Your task to perform on an android device: check battery use Image 0: 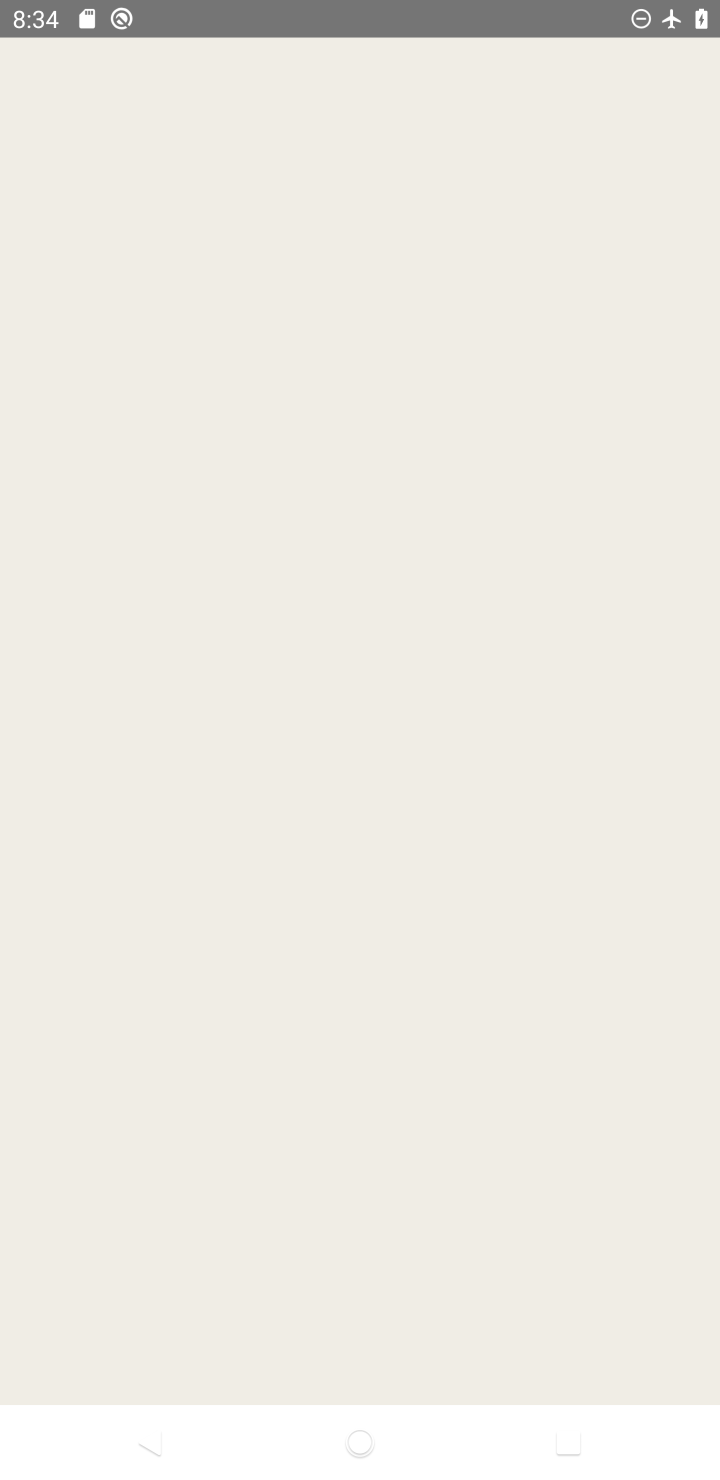
Step 0: press home button
Your task to perform on an android device: check battery use Image 1: 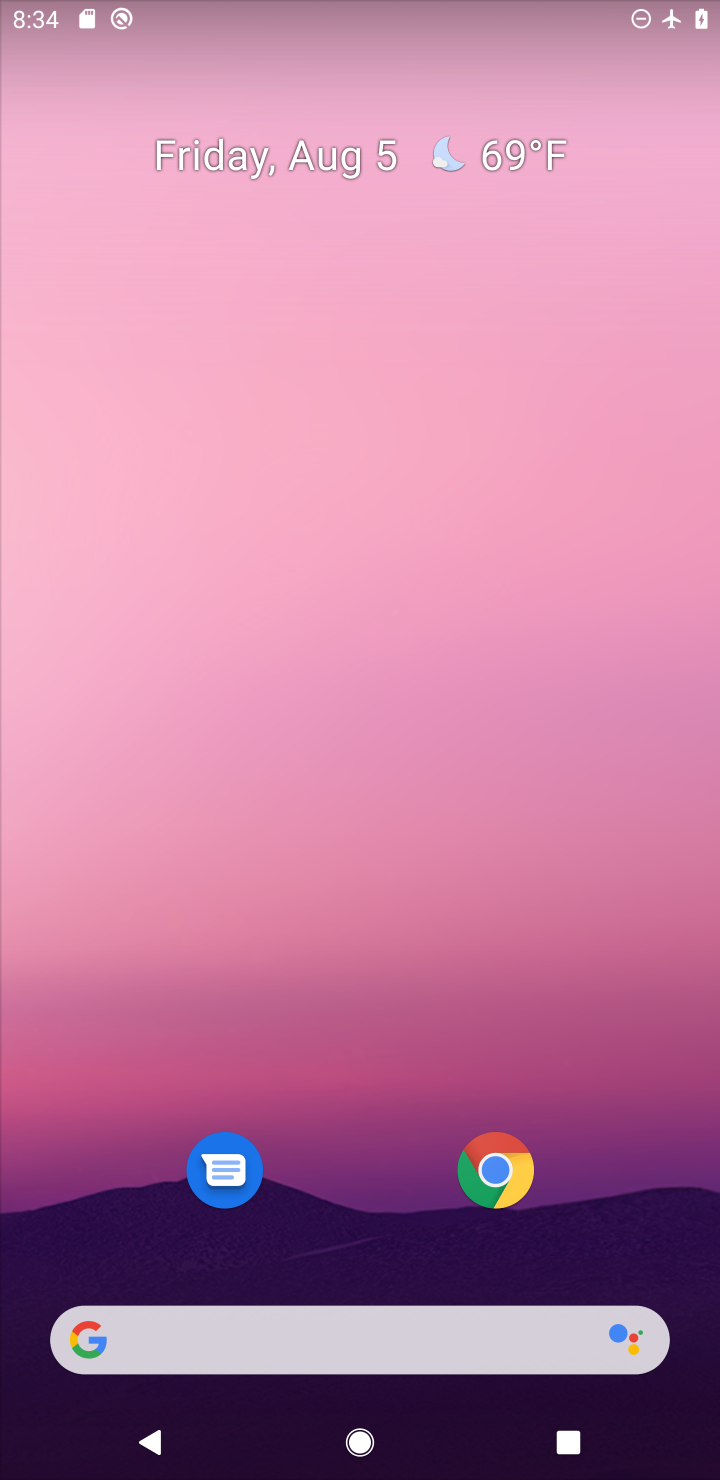
Step 1: drag from (584, 856) to (565, 174)
Your task to perform on an android device: check battery use Image 2: 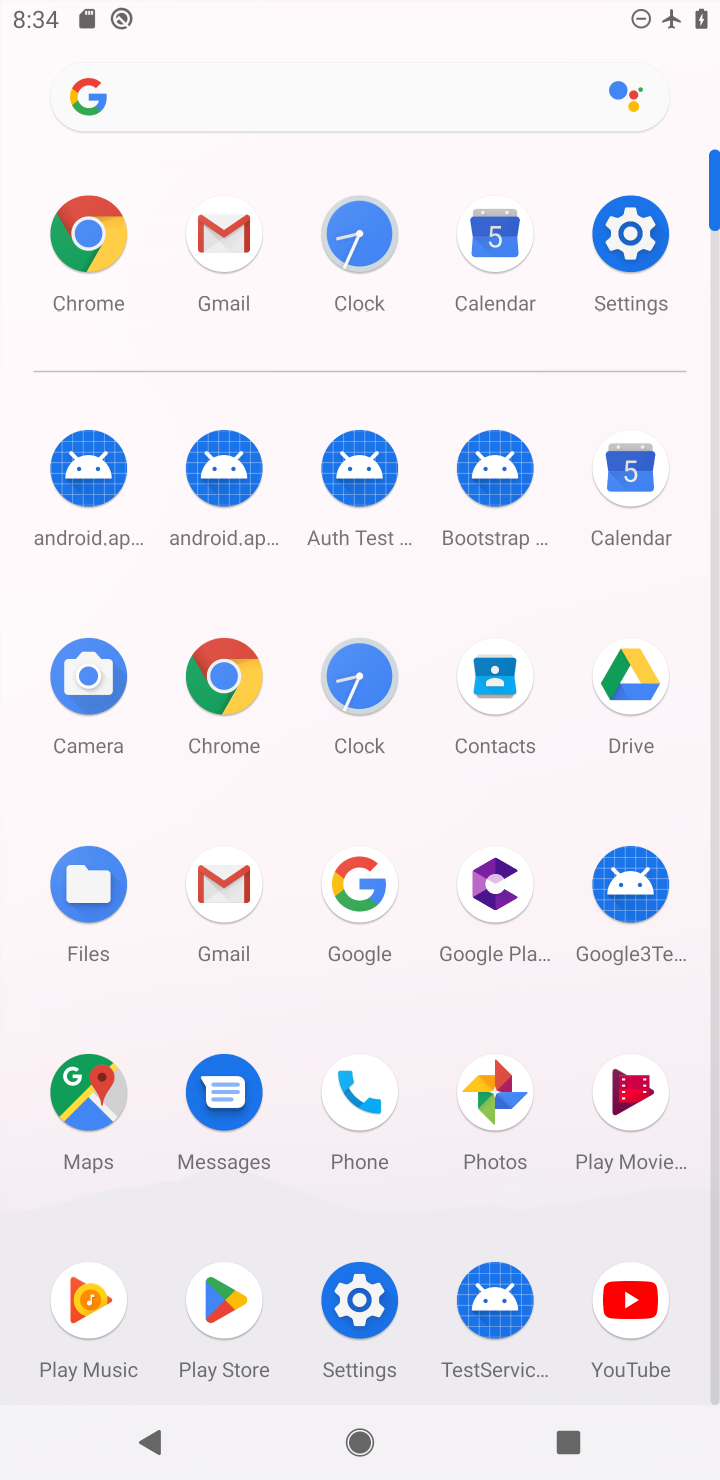
Step 2: click (358, 1306)
Your task to perform on an android device: check battery use Image 3: 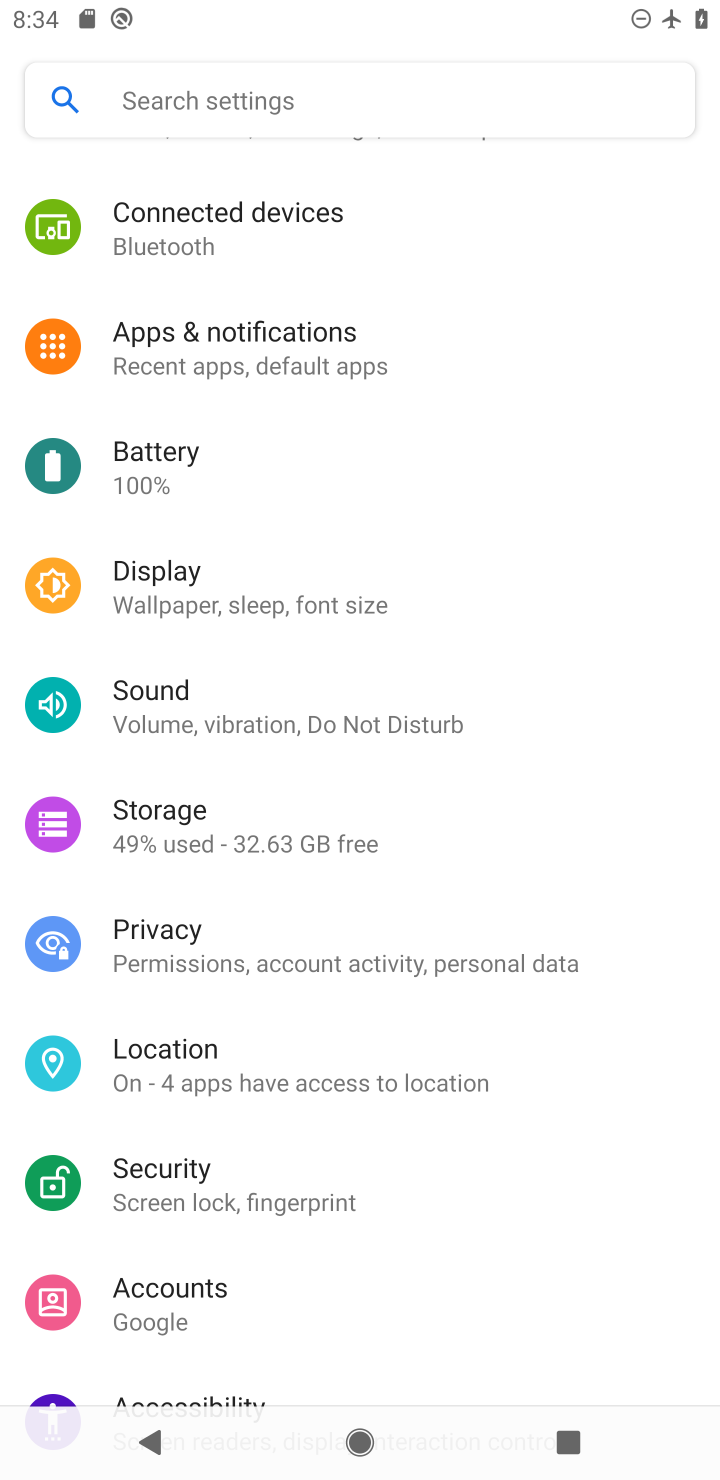
Step 3: click (166, 461)
Your task to perform on an android device: check battery use Image 4: 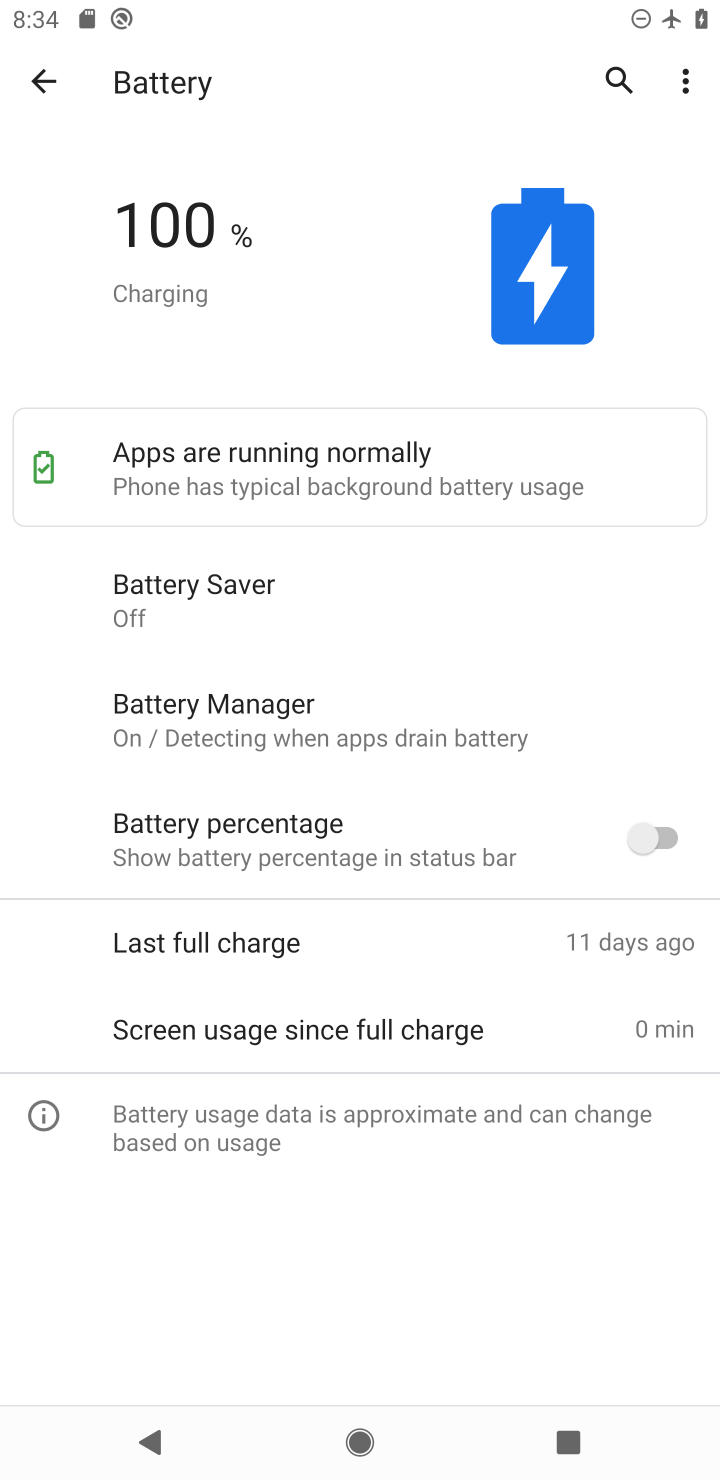
Step 4: click (684, 94)
Your task to perform on an android device: check battery use Image 5: 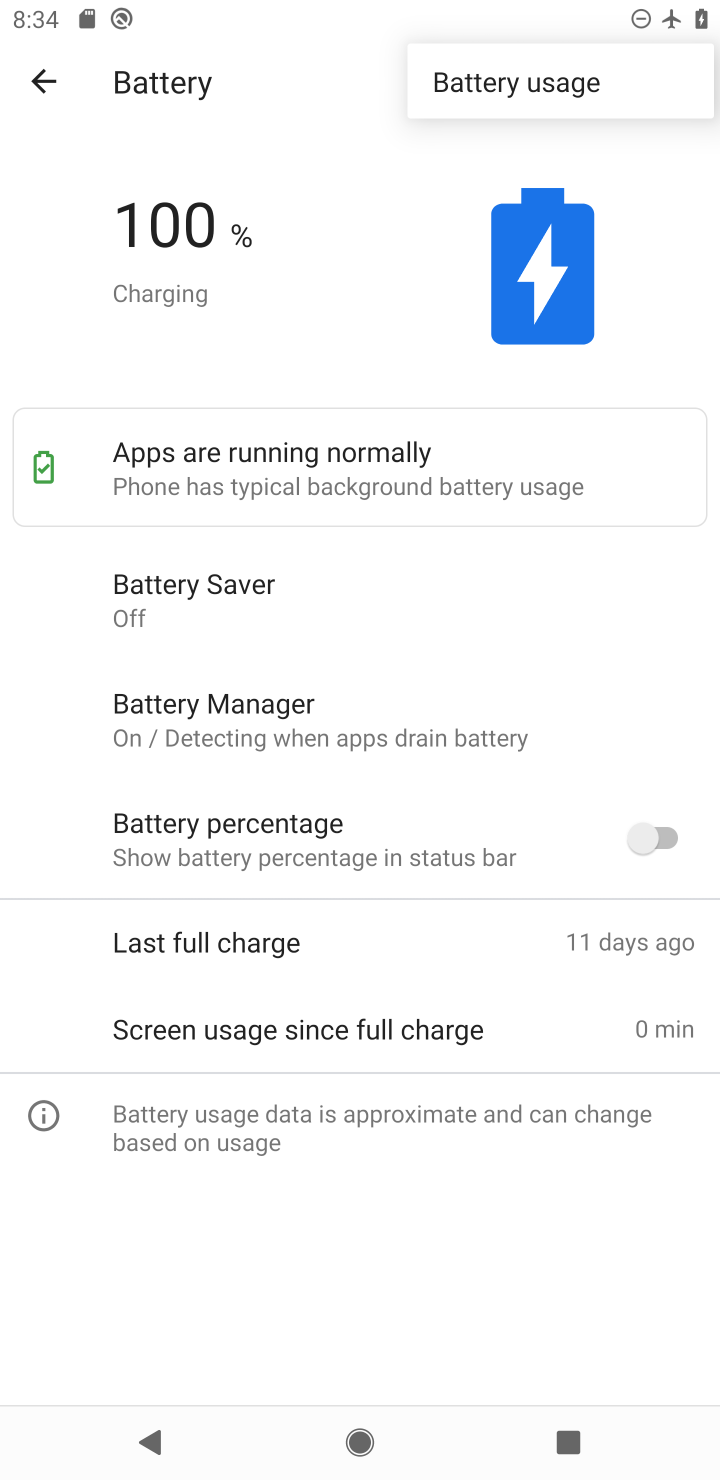
Step 5: click (501, 82)
Your task to perform on an android device: check battery use Image 6: 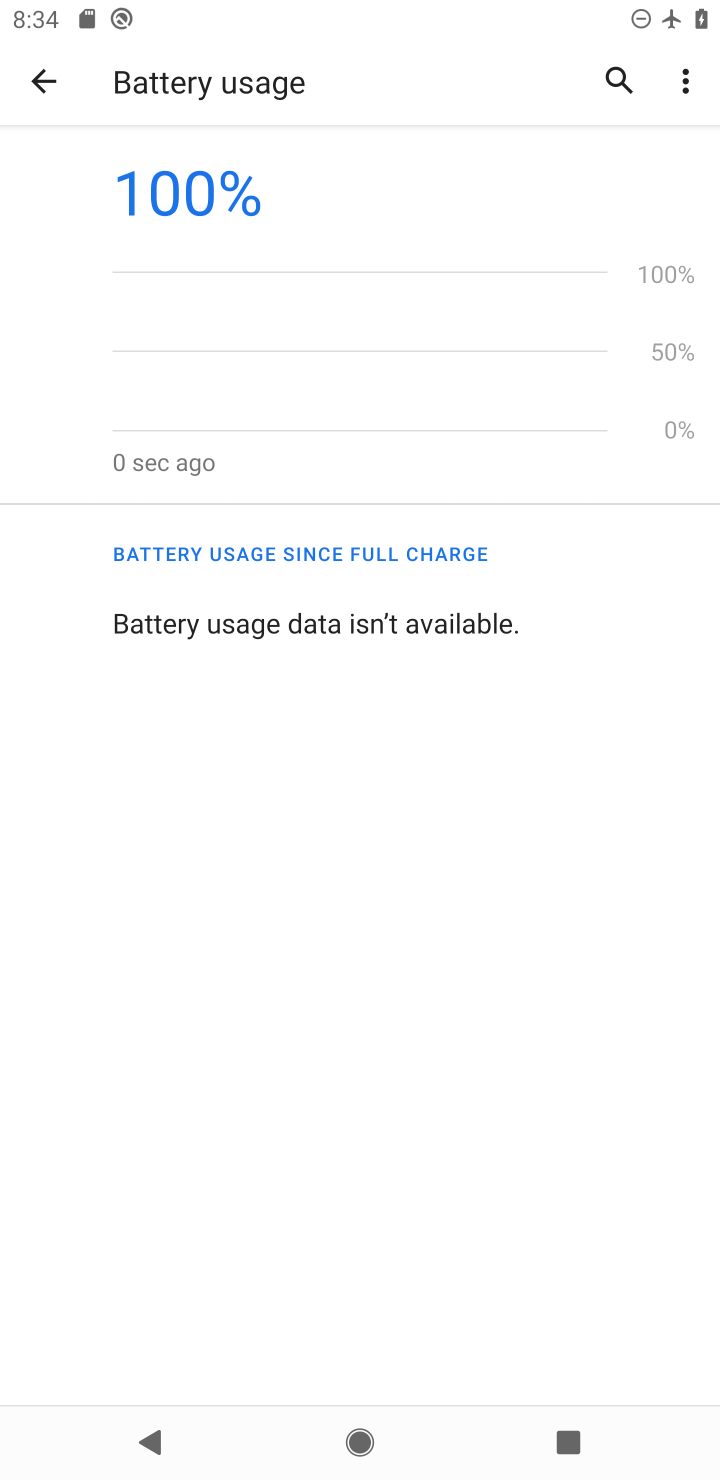
Step 6: task complete